Your task to perform on an android device: Show me productivity apps on the Play Store Image 0: 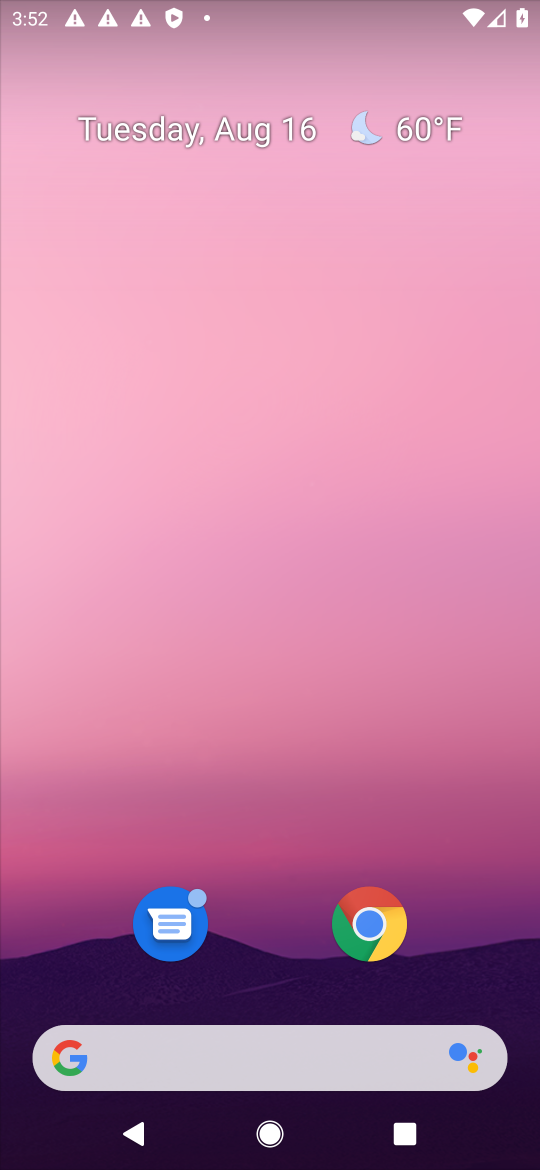
Step 0: drag from (288, 971) to (252, 147)
Your task to perform on an android device: Show me productivity apps on the Play Store Image 1: 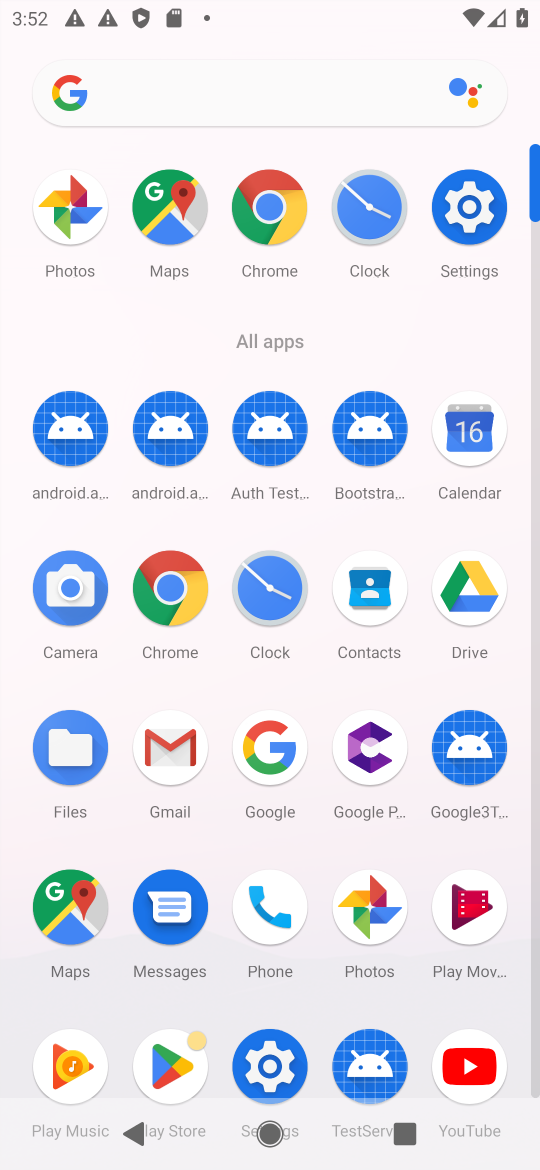
Step 1: click (202, 1025)
Your task to perform on an android device: Show me productivity apps on the Play Store Image 2: 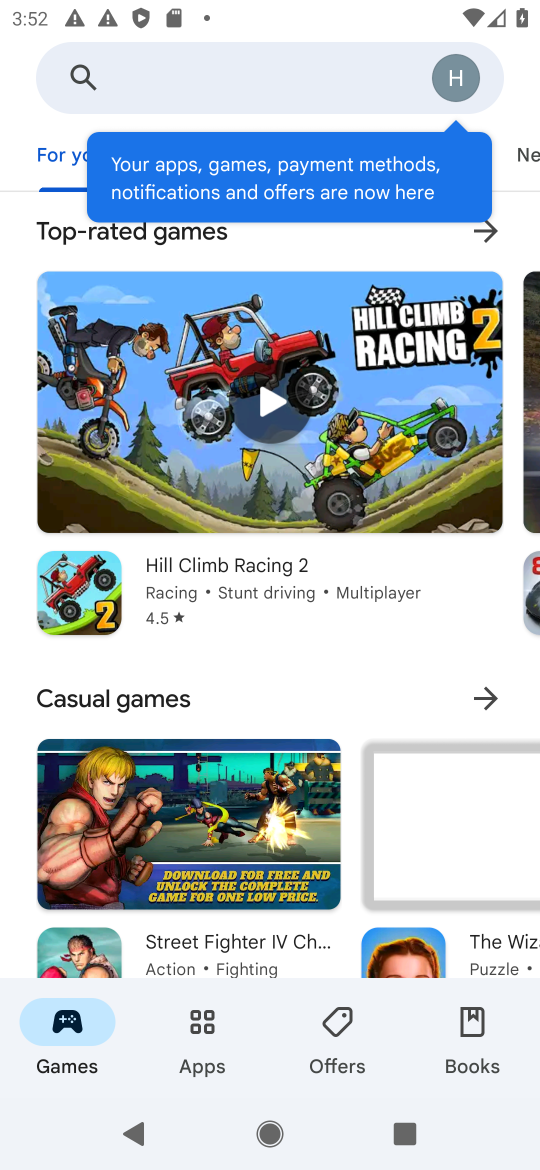
Step 2: click (202, 1025)
Your task to perform on an android device: Show me productivity apps on the Play Store Image 3: 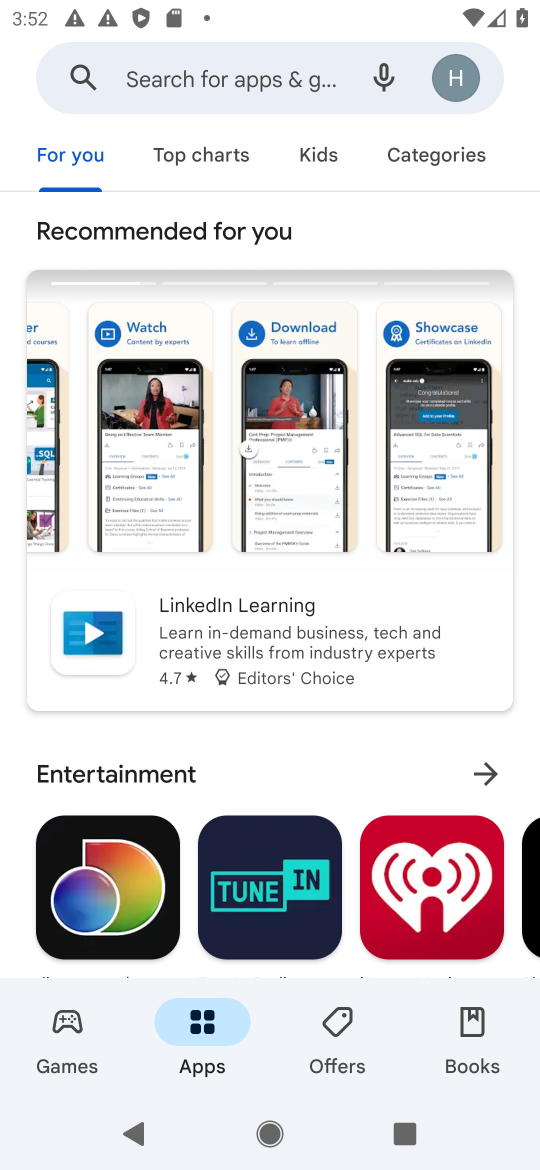
Step 3: click (428, 164)
Your task to perform on an android device: Show me productivity apps on the Play Store Image 4: 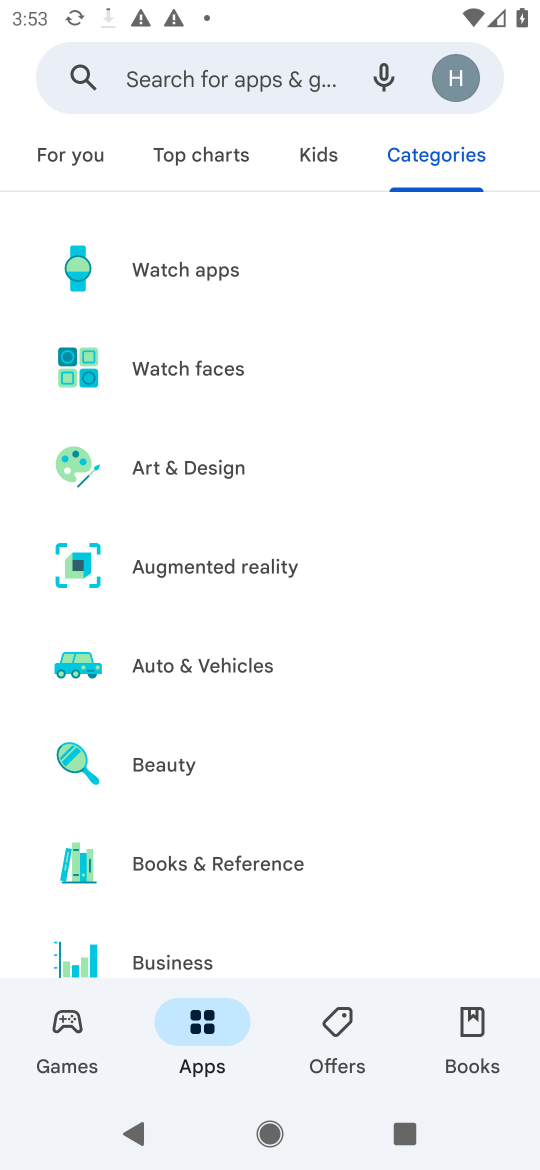
Step 4: drag from (141, 893) to (227, 97)
Your task to perform on an android device: Show me productivity apps on the Play Store Image 5: 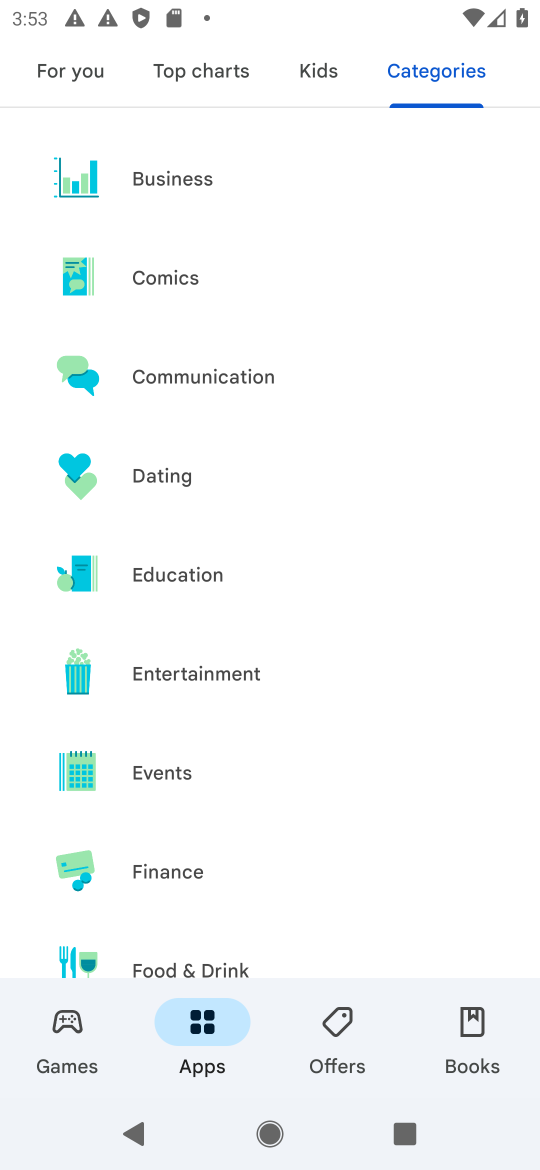
Step 5: drag from (209, 904) to (297, 100)
Your task to perform on an android device: Show me productivity apps on the Play Store Image 6: 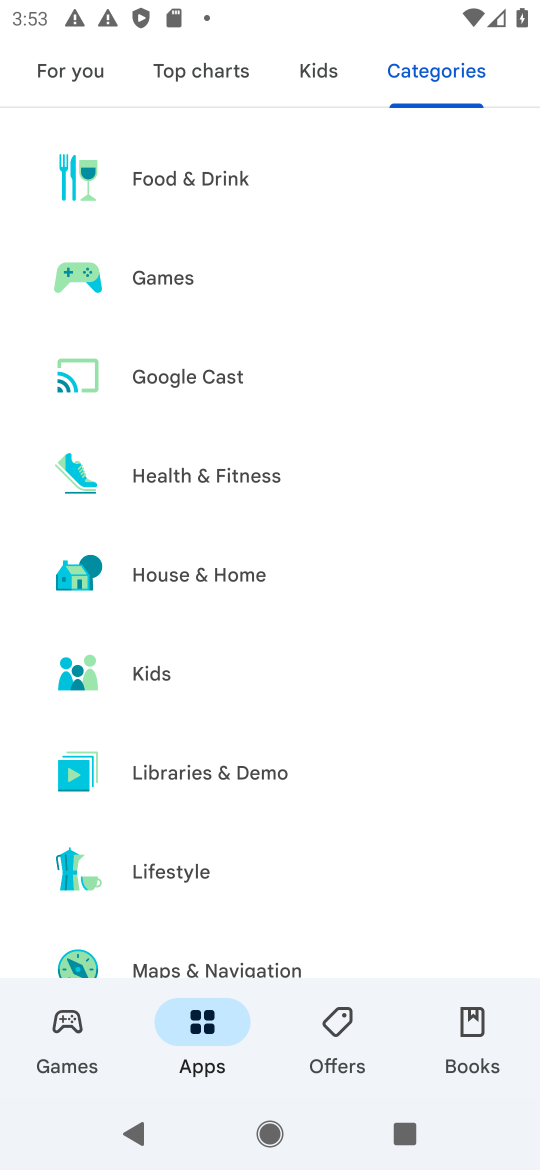
Step 6: drag from (281, 875) to (327, 171)
Your task to perform on an android device: Show me productivity apps on the Play Store Image 7: 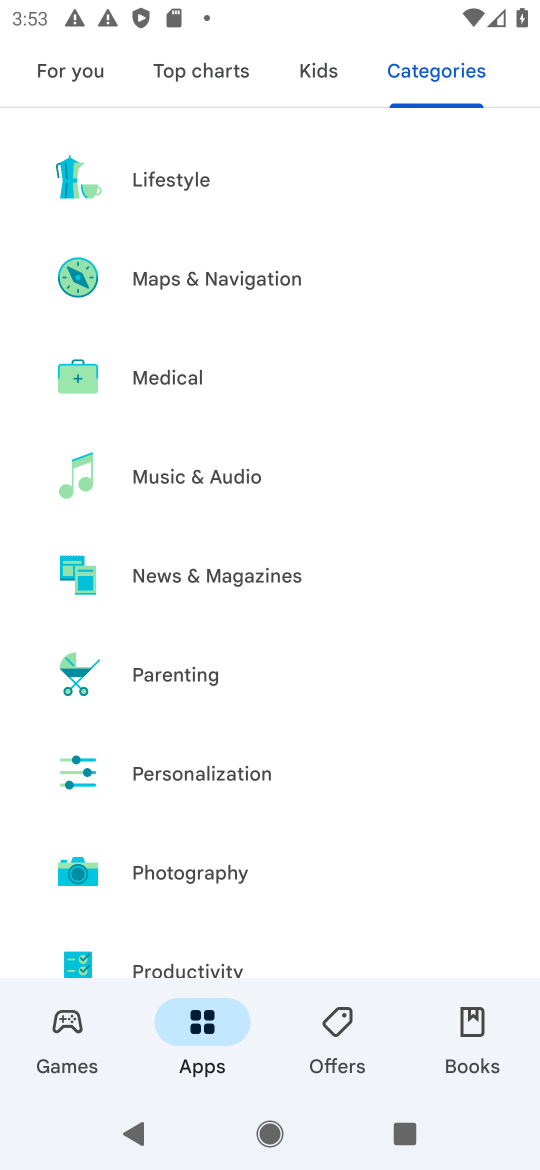
Step 7: click (68, 957)
Your task to perform on an android device: Show me productivity apps on the Play Store Image 8: 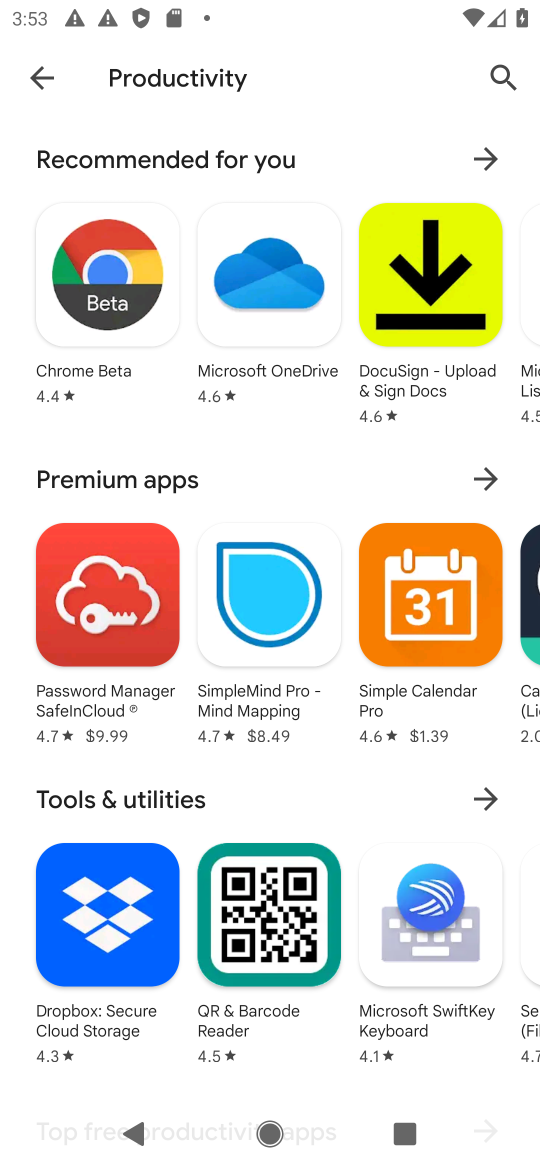
Step 8: task complete